Your task to perform on an android device: open wifi settings Image 0: 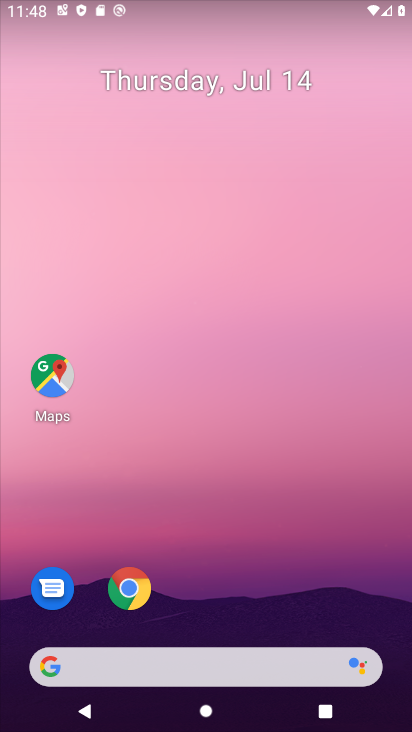
Step 0: drag from (120, 11) to (266, 607)
Your task to perform on an android device: open wifi settings Image 1: 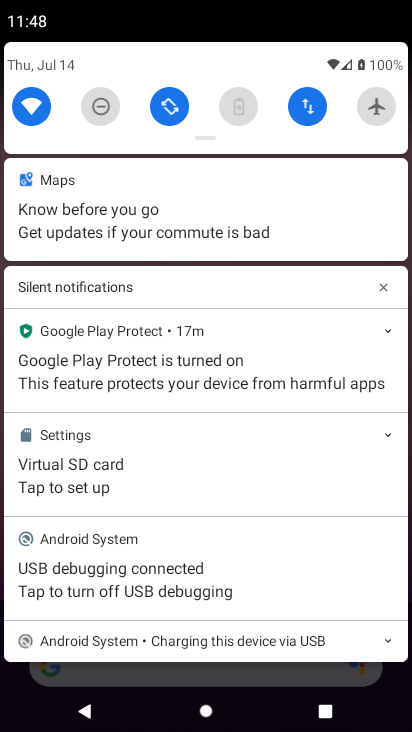
Step 1: click (34, 104)
Your task to perform on an android device: open wifi settings Image 2: 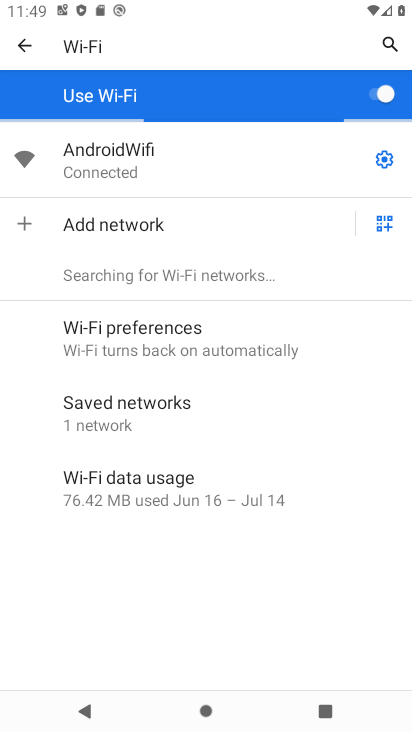
Step 2: task complete